Your task to perform on an android device: Set the phone to "Do not disturb". Image 0: 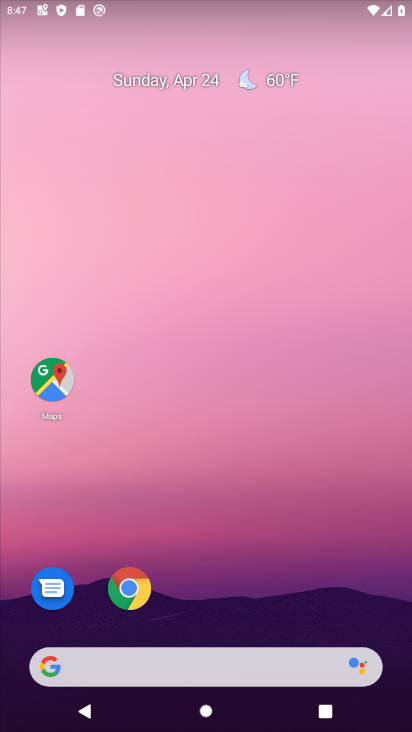
Step 0: drag from (216, 562) to (232, 40)
Your task to perform on an android device: Set the phone to "Do not disturb". Image 1: 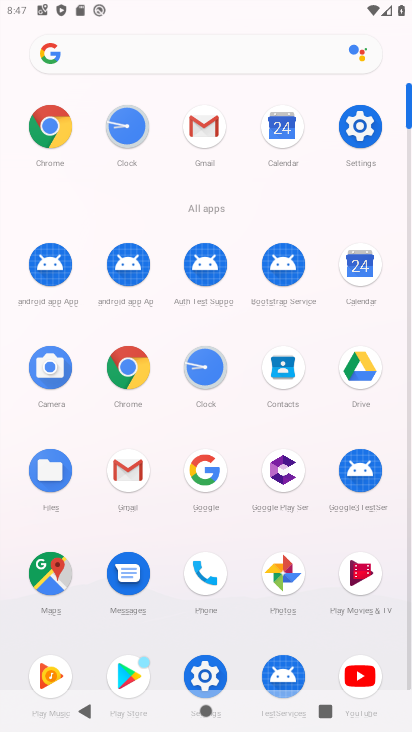
Step 1: click (359, 128)
Your task to perform on an android device: Set the phone to "Do not disturb". Image 2: 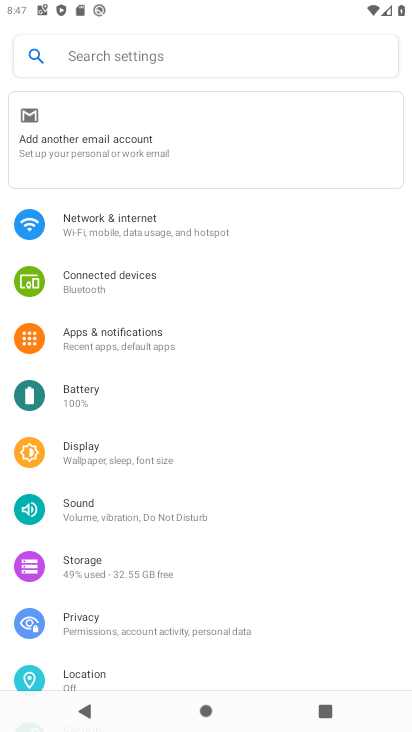
Step 2: drag from (116, 424) to (135, 376)
Your task to perform on an android device: Set the phone to "Do not disturb". Image 3: 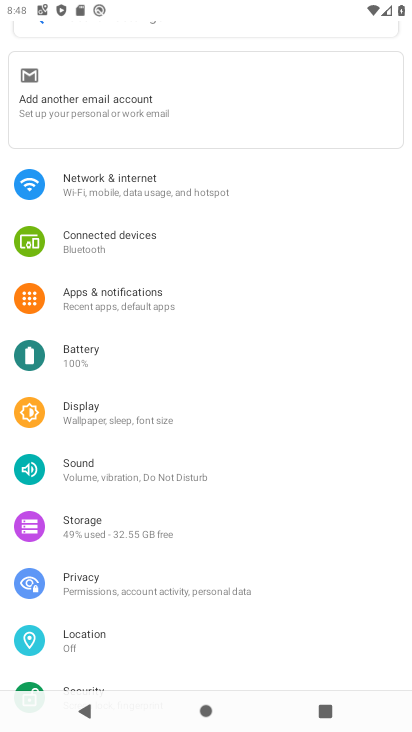
Step 3: drag from (132, 538) to (155, 450)
Your task to perform on an android device: Set the phone to "Do not disturb". Image 4: 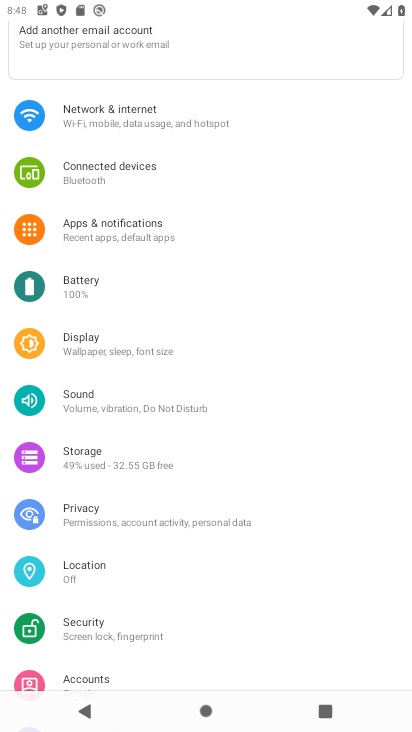
Step 4: click (144, 411)
Your task to perform on an android device: Set the phone to "Do not disturb". Image 5: 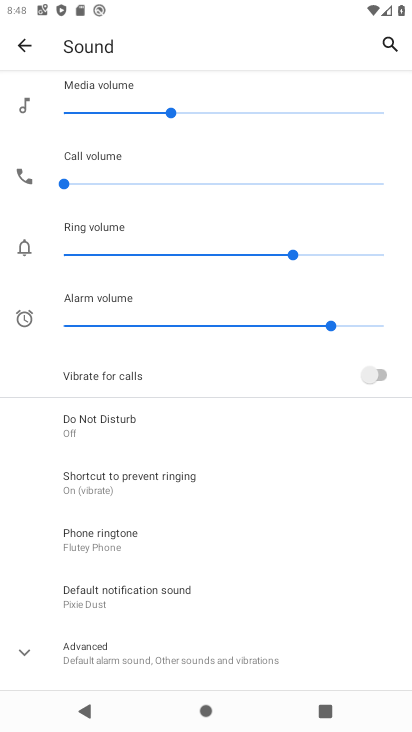
Step 5: click (126, 423)
Your task to perform on an android device: Set the phone to "Do not disturb". Image 6: 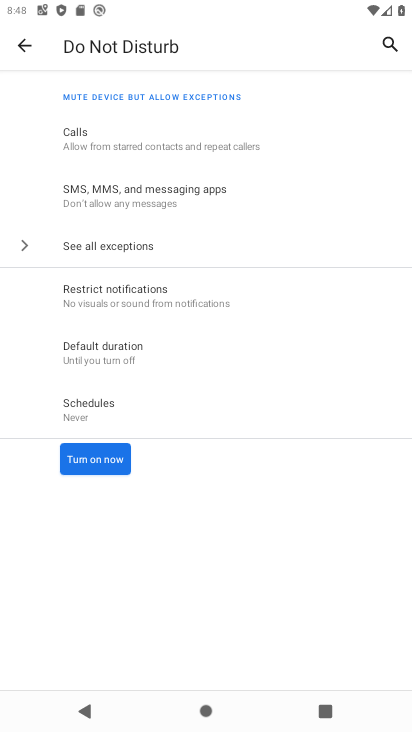
Step 6: click (101, 459)
Your task to perform on an android device: Set the phone to "Do not disturb". Image 7: 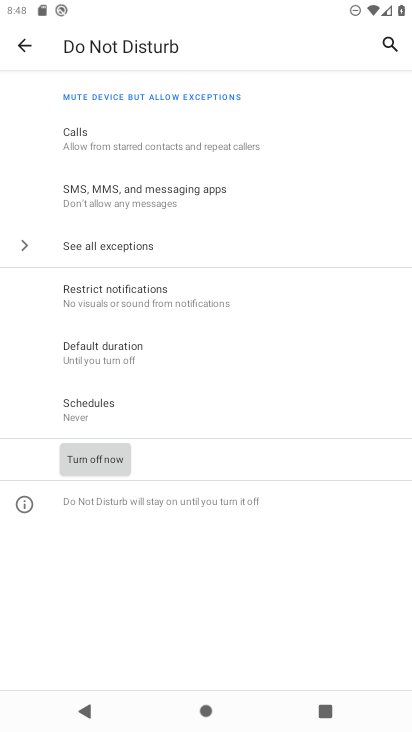
Step 7: task complete